Your task to perform on an android device: open wifi settings Image 0: 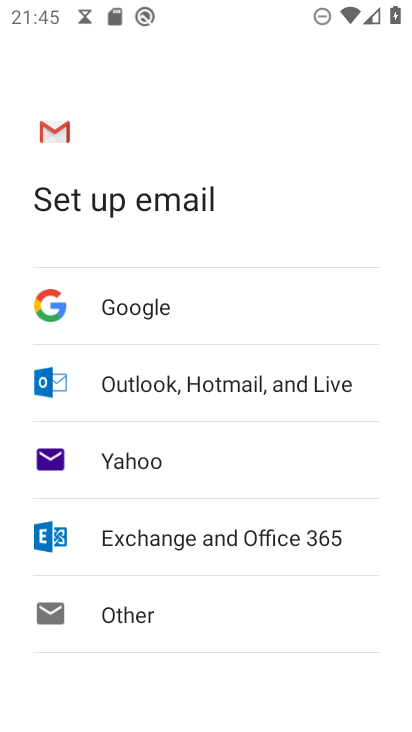
Step 0: press home button
Your task to perform on an android device: open wifi settings Image 1: 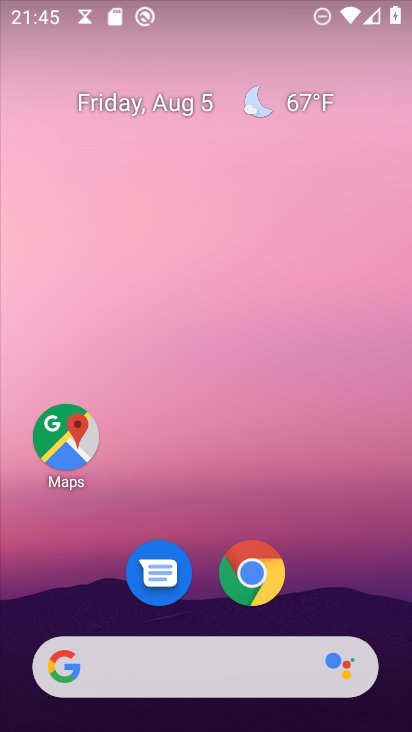
Step 1: drag from (164, 672) to (151, 92)
Your task to perform on an android device: open wifi settings Image 2: 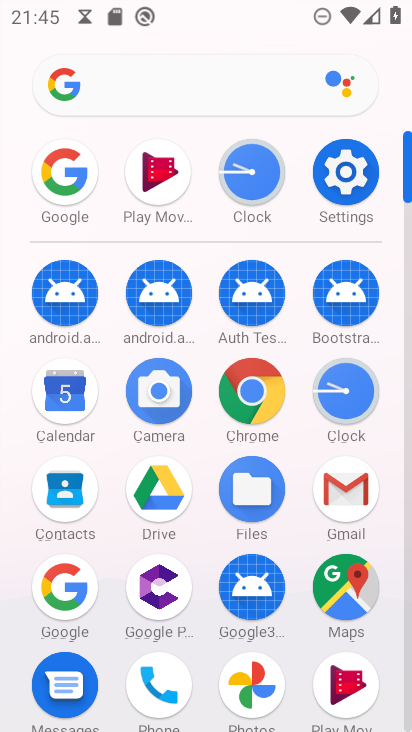
Step 2: click (345, 169)
Your task to perform on an android device: open wifi settings Image 3: 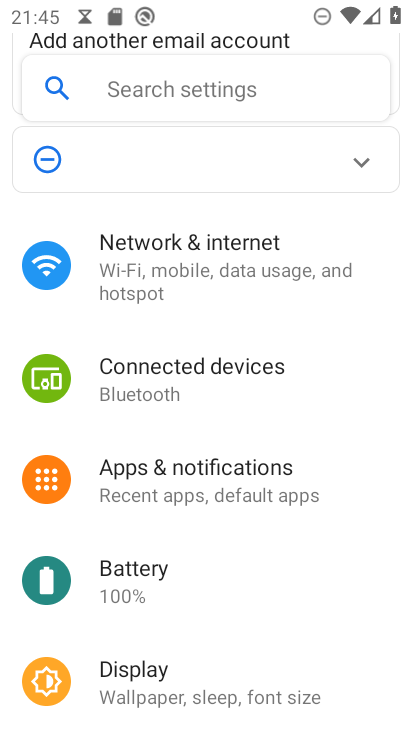
Step 3: click (230, 267)
Your task to perform on an android device: open wifi settings Image 4: 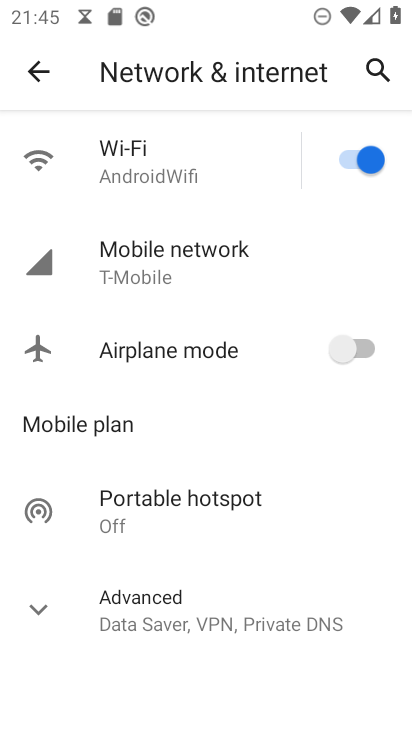
Step 4: click (140, 160)
Your task to perform on an android device: open wifi settings Image 5: 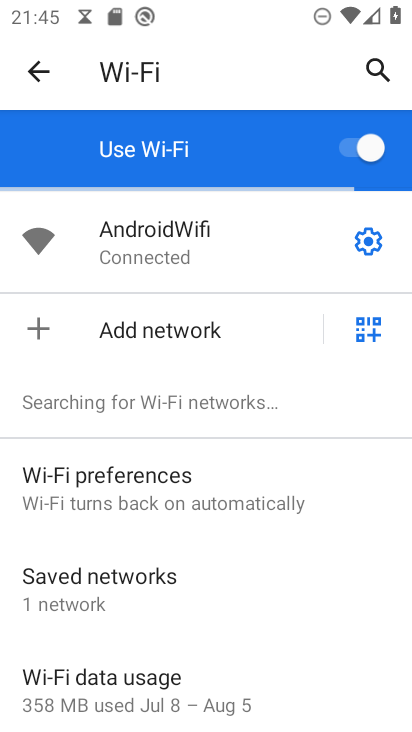
Step 5: click (370, 236)
Your task to perform on an android device: open wifi settings Image 6: 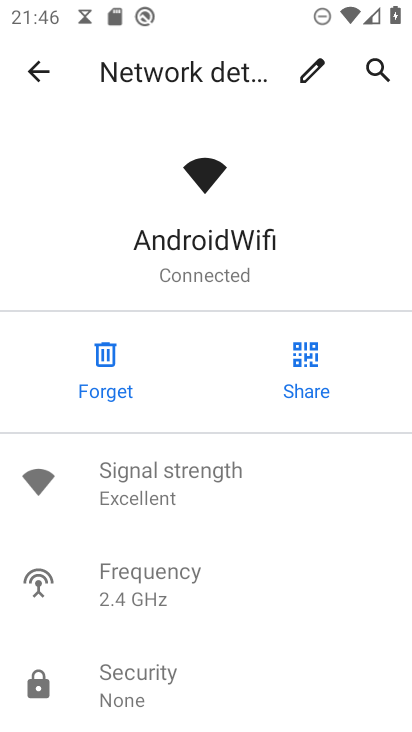
Step 6: task complete